Your task to perform on an android device: What's the weather going to be tomorrow? Image 0: 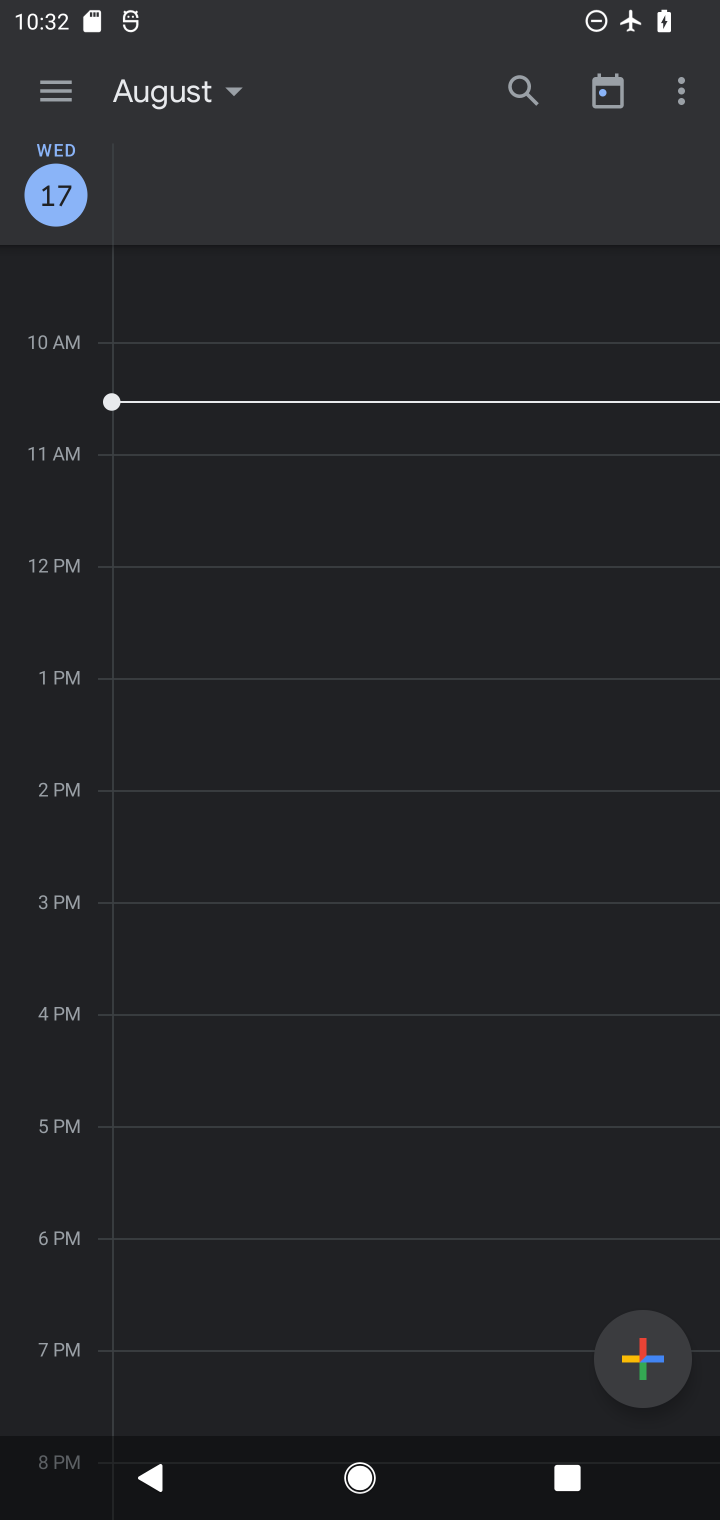
Step 0: press home button
Your task to perform on an android device: What's the weather going to be tomorrow? Image 1: 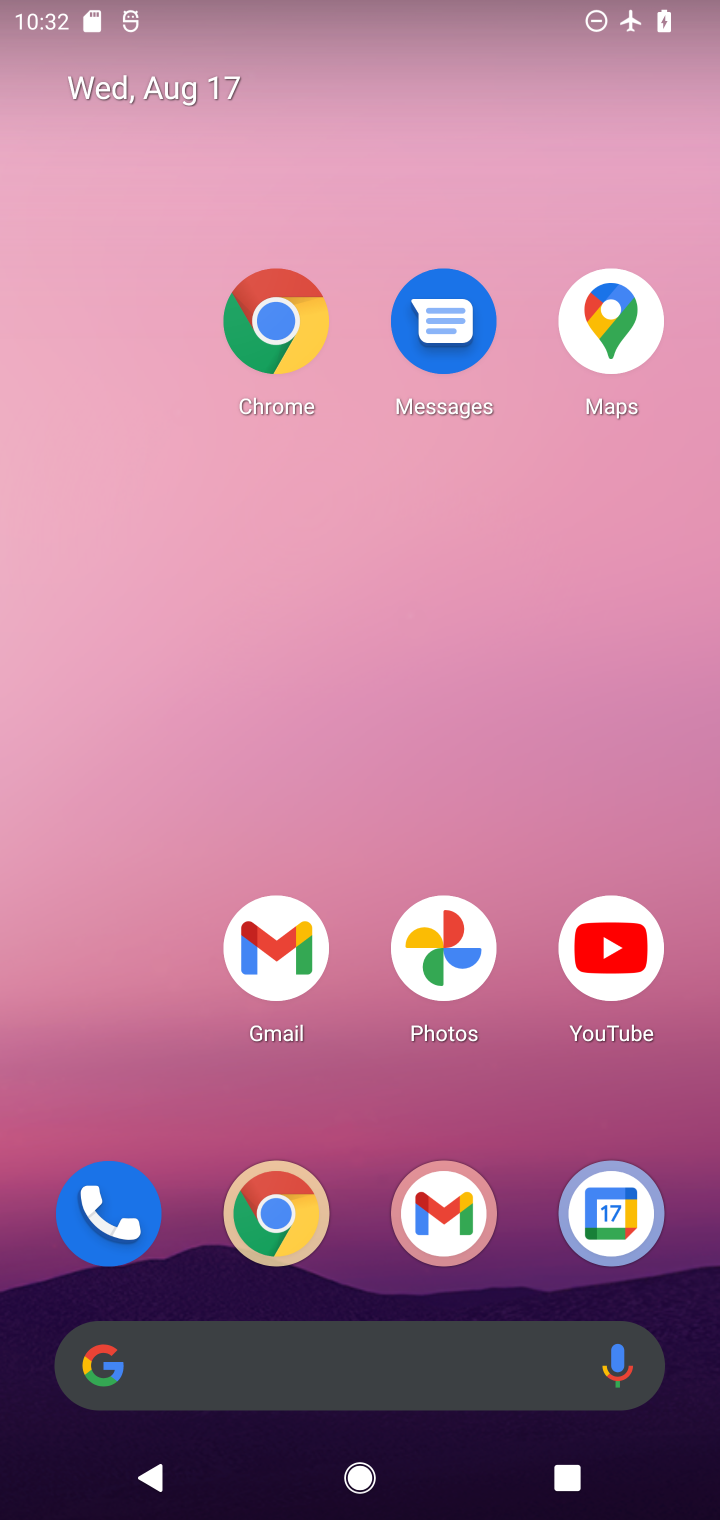
Step 1: click (401, 1368)
Your task to perform on an android device: What's the weather going to be tomorrow? Image 2: 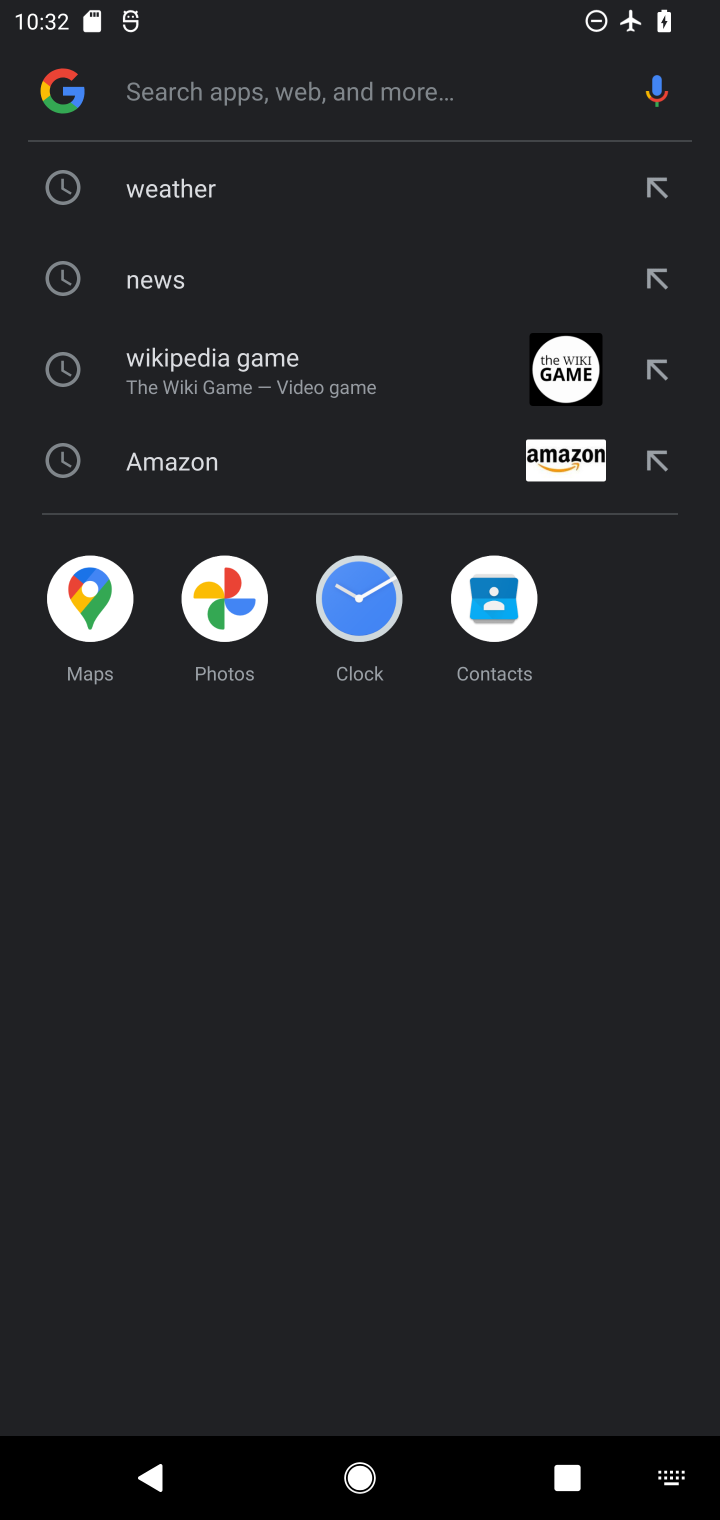
Step 2: click (262, 214)
Your task to perform on an android device: What's the weather going to be tomorrow? Image 3: 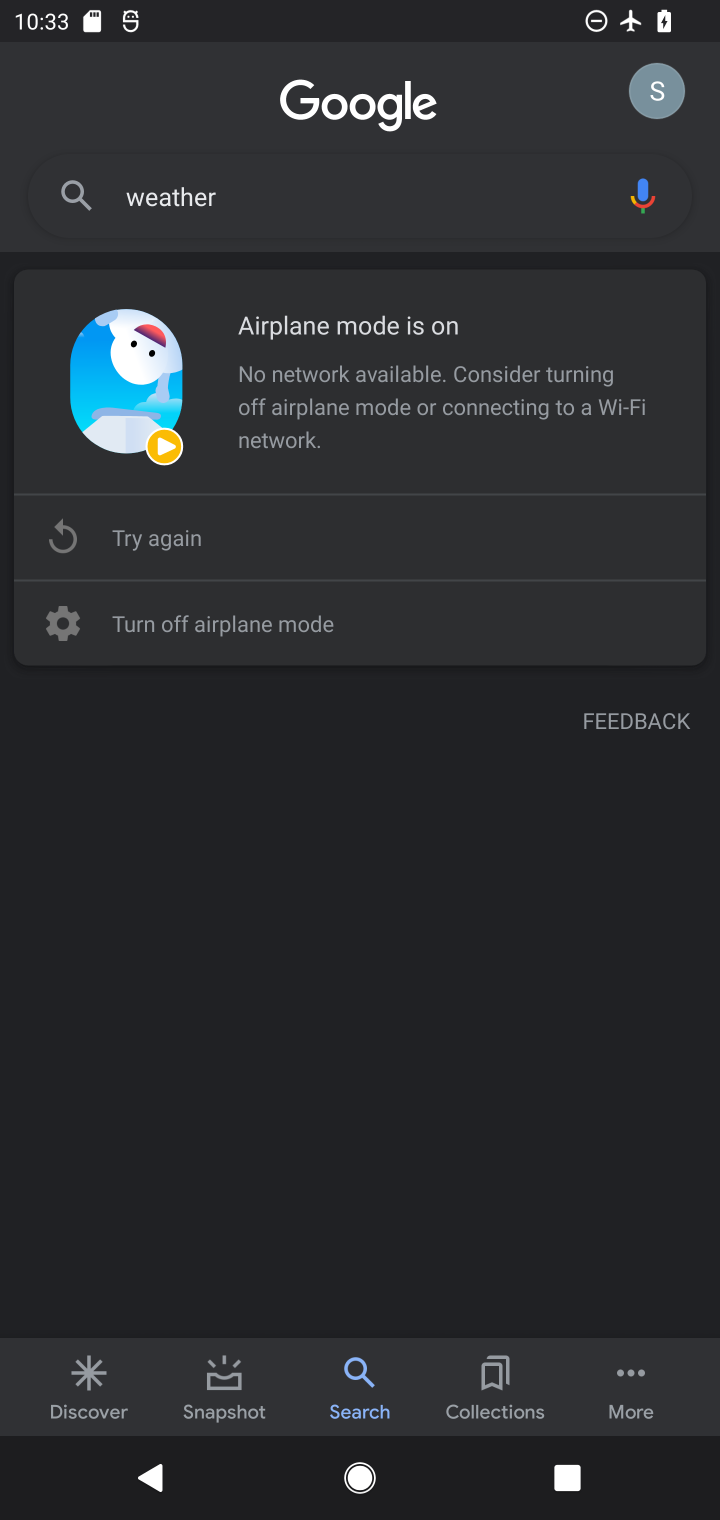
Step 3: task complete